Your task to perform on an android device: empty trash in the gmail app Image 0: 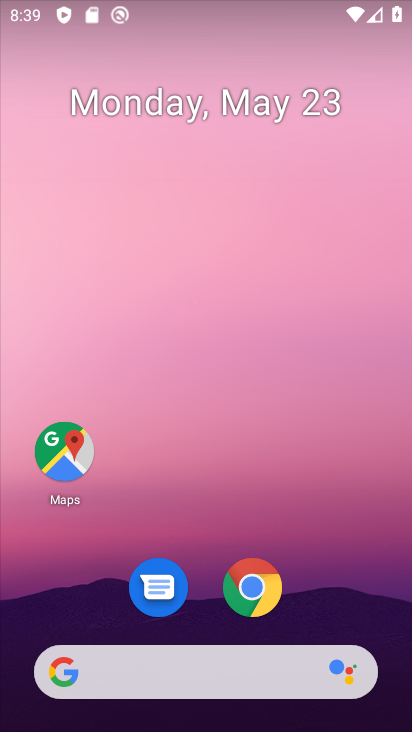
Step 0: drag from (318, 609) to (319, 73)
Your task to perform on an android device: empty trash in the gmail app Image 1: 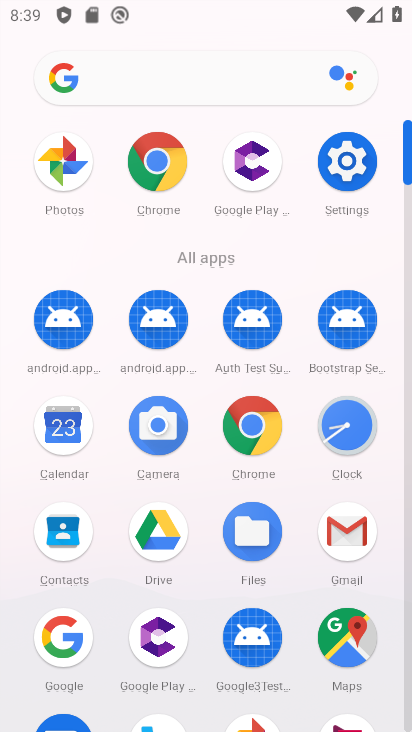
Step 1: click (350, 533)
Your task to perform on an android device: empty trash in the gmail app Image 2: 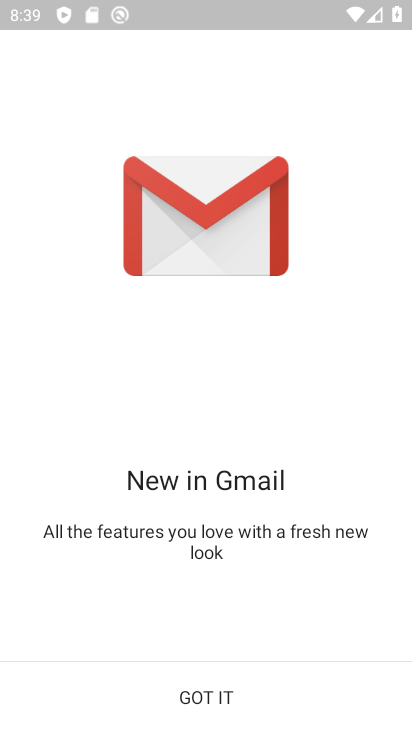
Step 2: click (219, 693)
Your task to perform on an android device: empty trash in the gmail app Image 3: 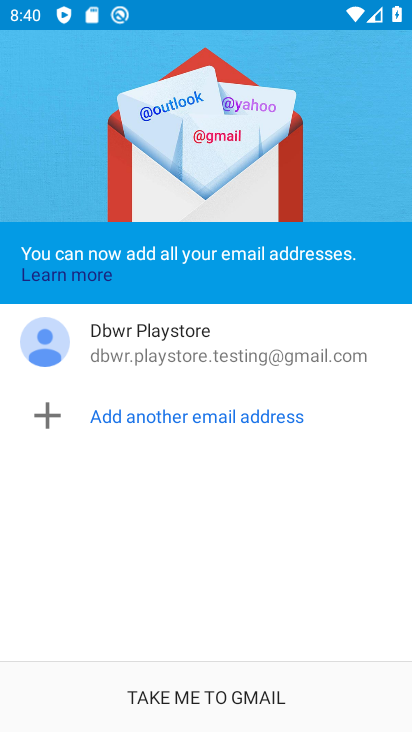
Step 3: click (219, 693)
Your task to perform on an android device: empty trash in the gmail app Image 4: 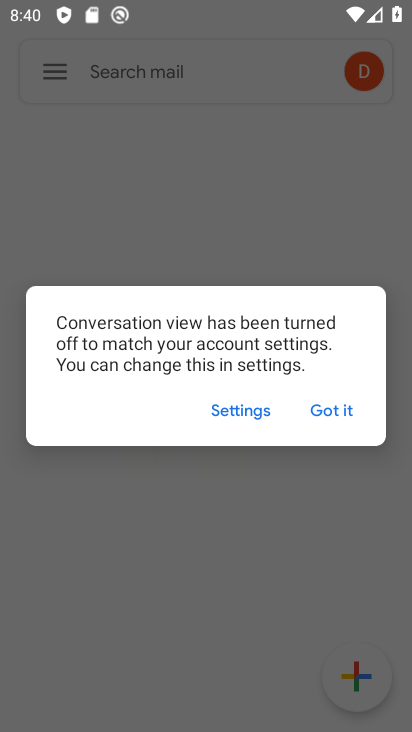
Step 4: click (330, 406)
Your task to perform on an android device: empty trash in the gmail app Image 5: 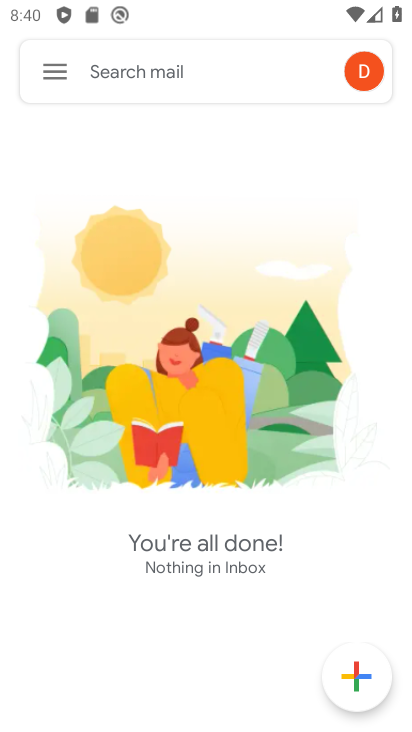
Step 5: click (55, 80)
Your task to perform on an android device: empty trash in the gmail app Image 6: 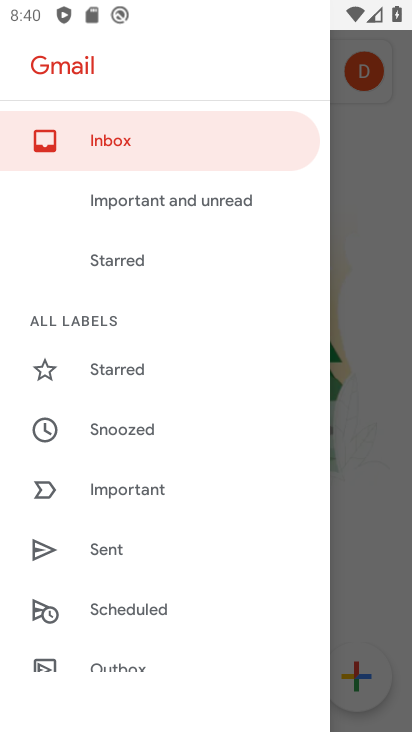
Step 6: drag from (160, 655) to (188, 394)
Your task to perform on an android device: empty trash in the gmail app Image 7: 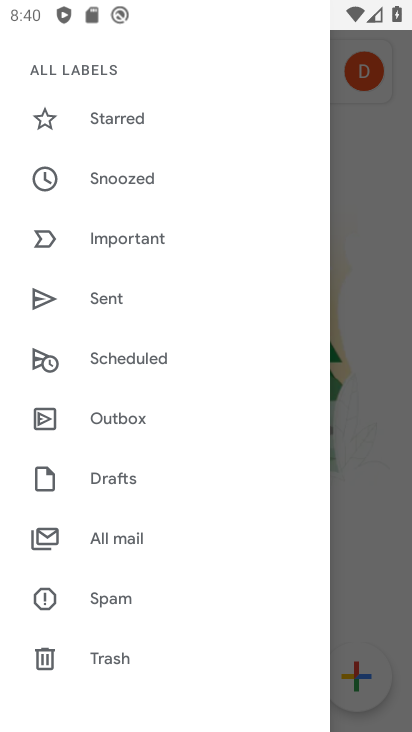
Step 7: click (121, 651)
Your task to perform on an android device: empty trash in the gmail app Image 8: 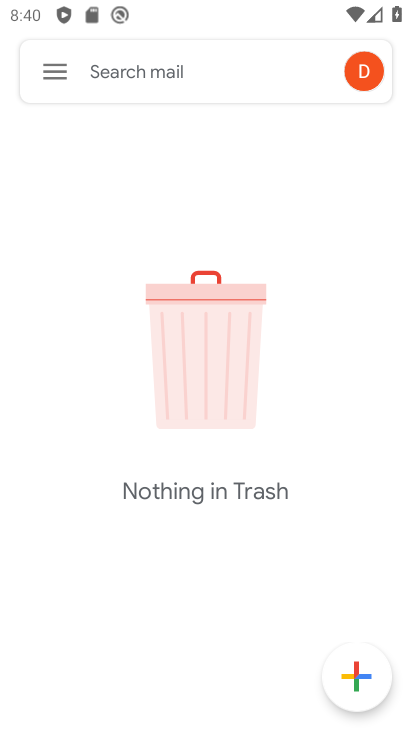
Step 8: task complete